Your task to perform on an android device: set the stopwatch Image 0: 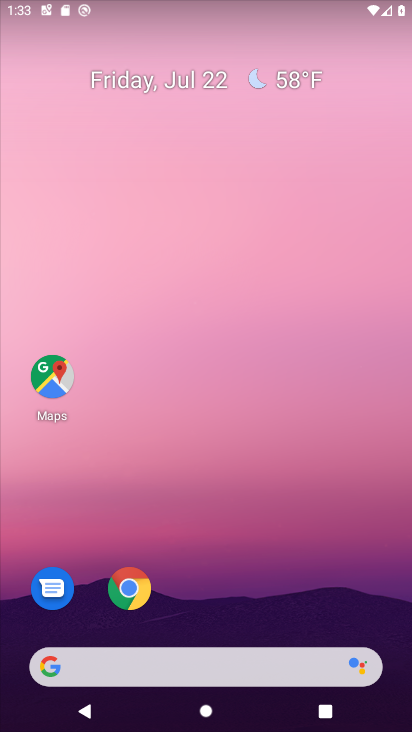
Step 0: press home button
Your task to perform on an android device: set the stopwatch Image 1: 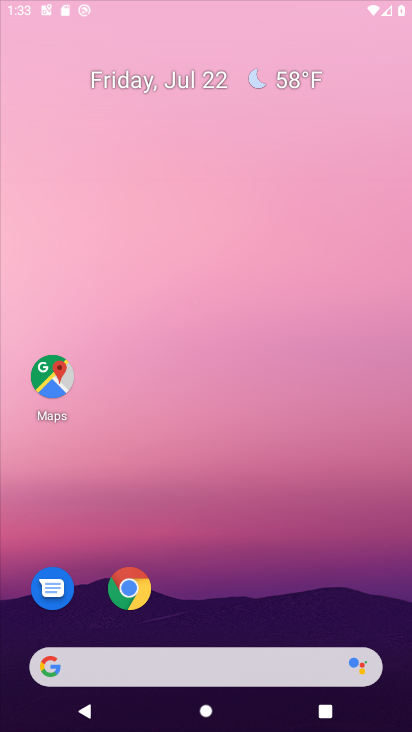
Step 1: drag from (227, 606) to (211, 527)
Your task to perform on an android device: set the stopwatch Image 2: 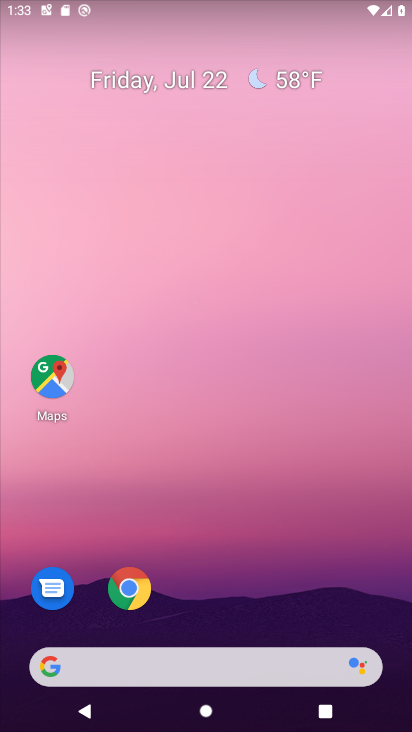
Step 2: drag from (298, 576) to (301, 194)
Your task to perform on an android device: set the stopwatch Image 3: 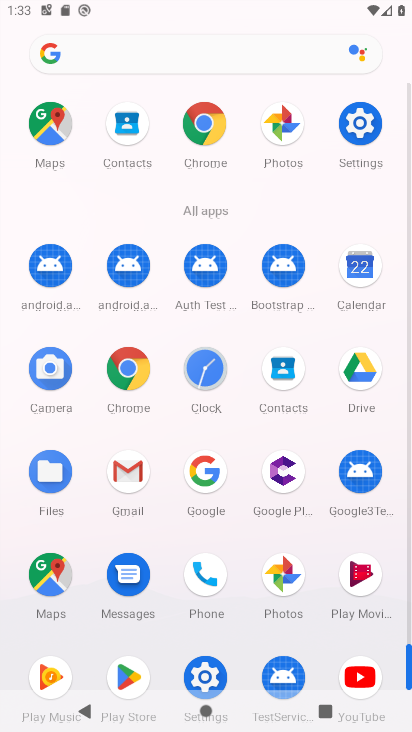
Step 3: drag from (409, 670) to (300, 226)
Your task to perform on an android device: set the stopwatch Image 4: 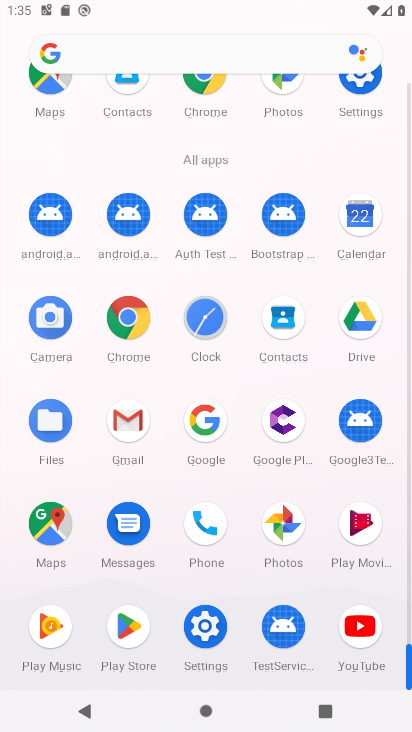
Step 4: click (212, 315)
Your task to perform on an android device: set the stopwatch Image 5: 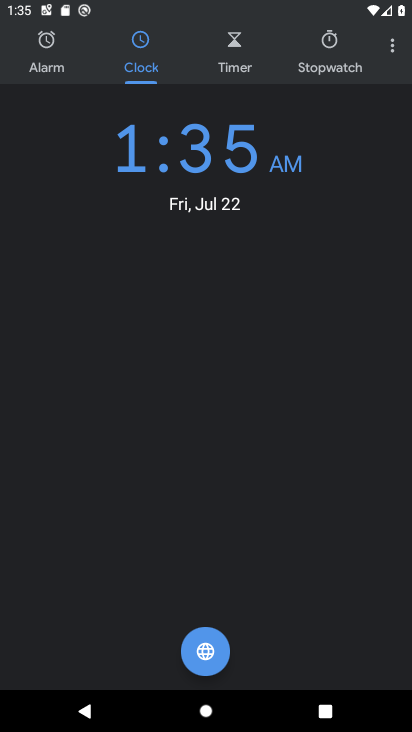
Step 5: click (308, 32)
Your task to perform on an android device: set the stopwatch Image 6: 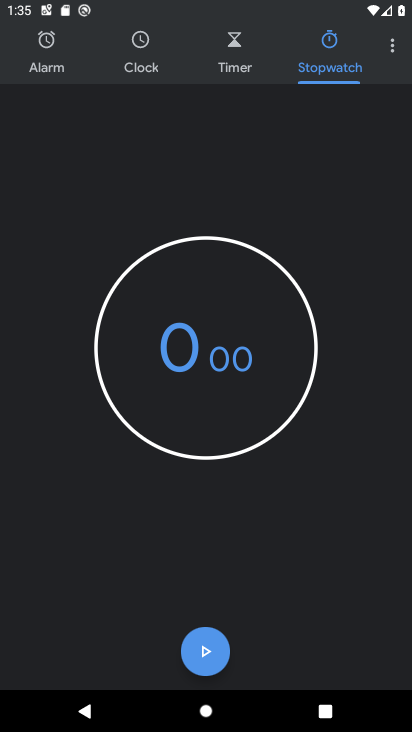
Step 6: click (205, 648)
Your task to perform on an android device: set the stopwatch Image 7: 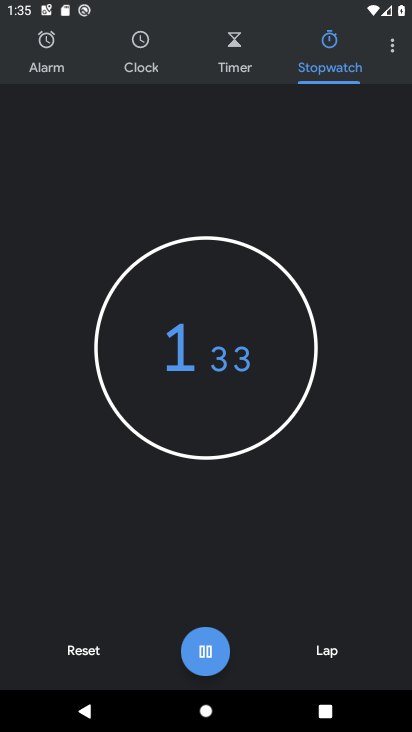
Step 7: task complete